Your task to perform on an android device: Go to privacy settings Image 0: 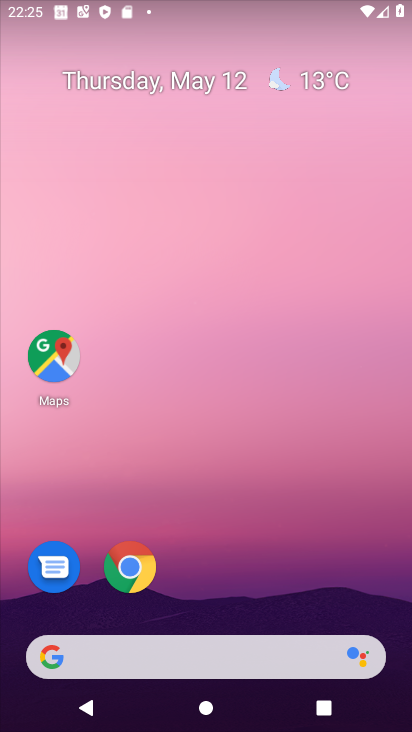
Step 0: drag from (207, 616) to (206, 21)
Your task to perform on an android device: Go to privacy settings Image 1: 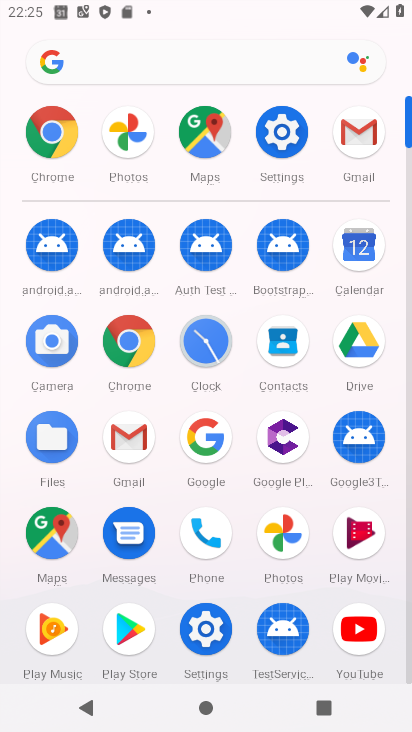
Step 1: click (205, 627)
Your task to perform on an android device: Go to privacy settings Image 2: 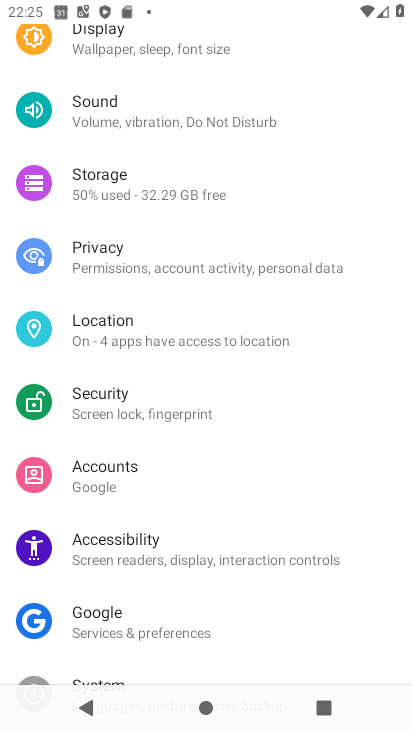
Step 2: click (132, 248)
Your task to perform on an android device: Go to privacy settings Image 3: 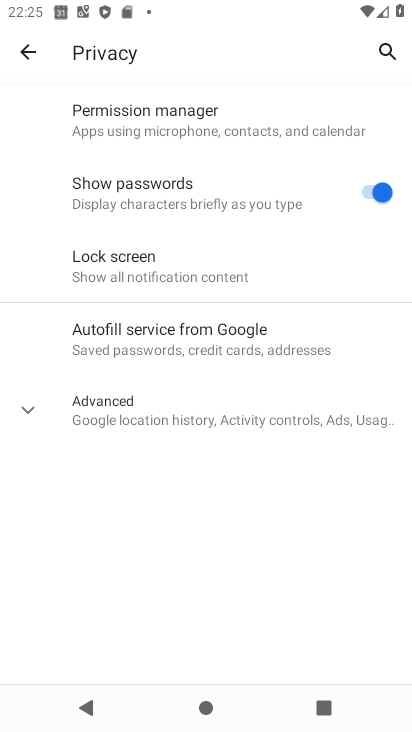
Step 3: click (34, 405)
Your task to perform on an android device: Go to privacy settings Image 4: 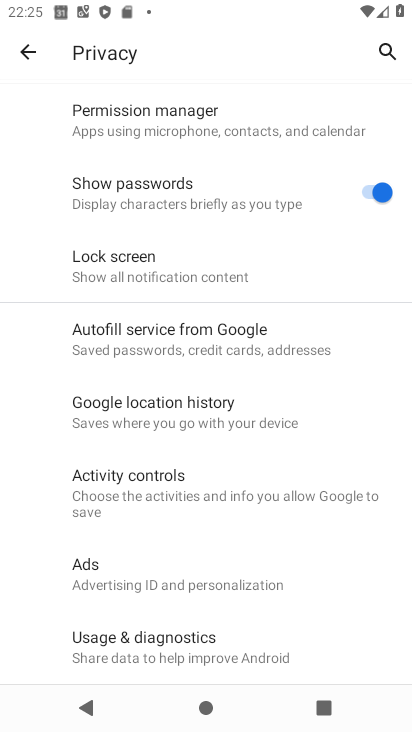
Step 4: task complete